Your task to perform on an android device: open a new tab in the chrome app Image 0: 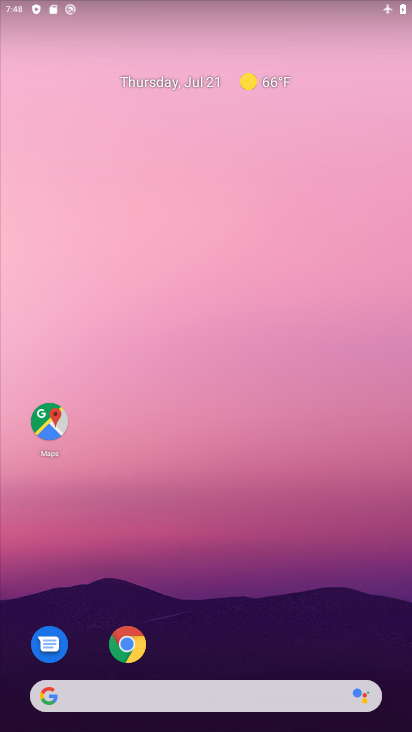
Step 0: click (207, 120)
Your task to perform on an android device: open a new tab in the chrome app Image 1: 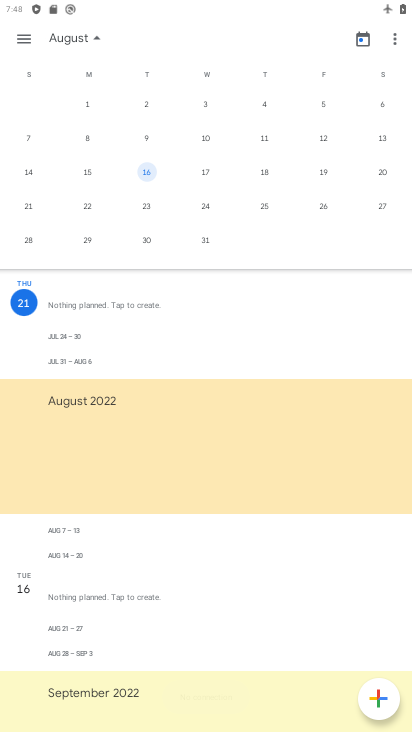
Step 1: press back button
Your task to perform on an android device: open a new tab in the chrome app Image 2: 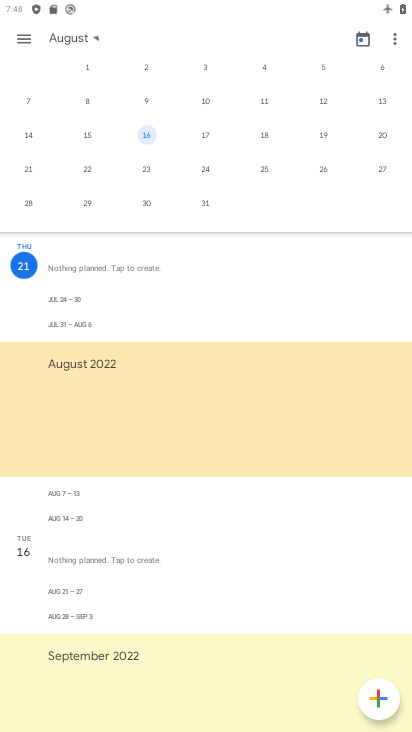
Step 2: press back button
Your task to perform on an android device: open a new tab in the chrome app Image 3: 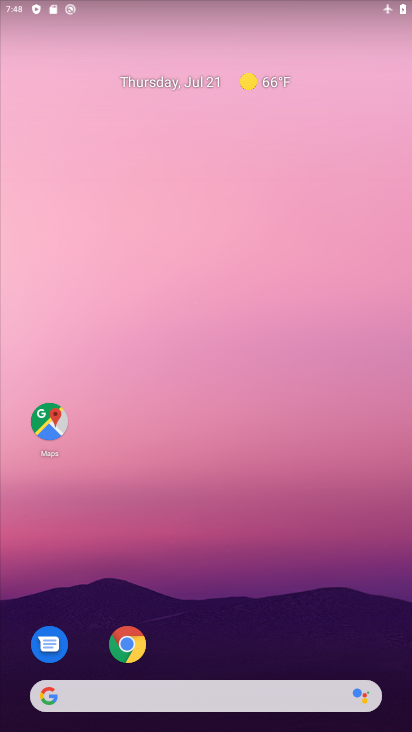
Step 3: drag from (236, 507) to (232, 102)
Your task to perform on an android device: open a new tab in the chrome app Image 4: 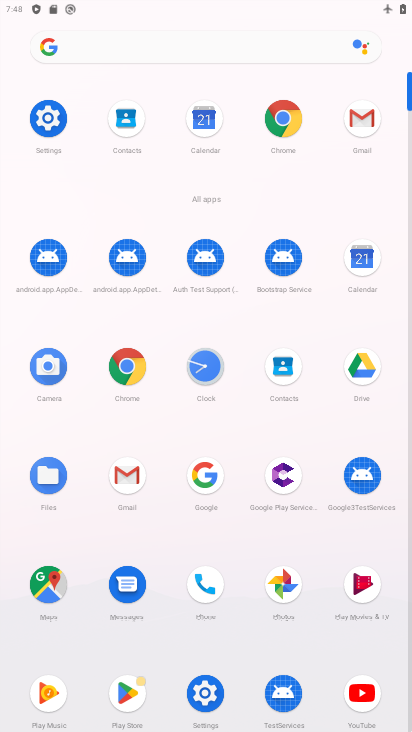
Step 4: click (286, 112)
Your task to perform on an android device: open a new tab in the chrome app Image 5: 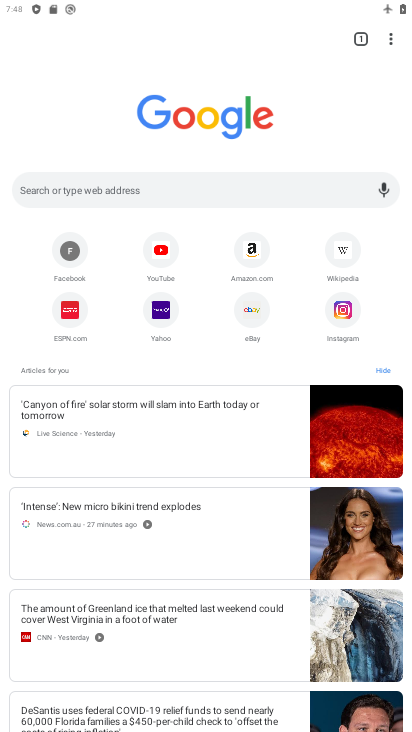
Step 5: drag from (393, 42) to (241, 72)
Your task to perform on an android device: open a new tab in the chrome app Image 6: 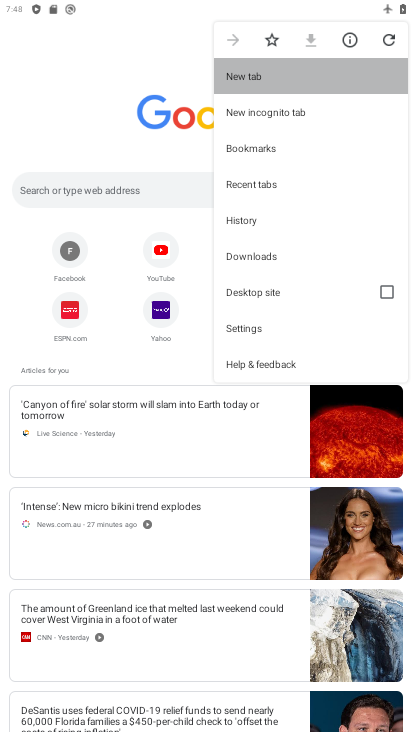
Step 6: click (241, 72)
Your task to perform on an android device: open a new tab in the chrome app Image 7: 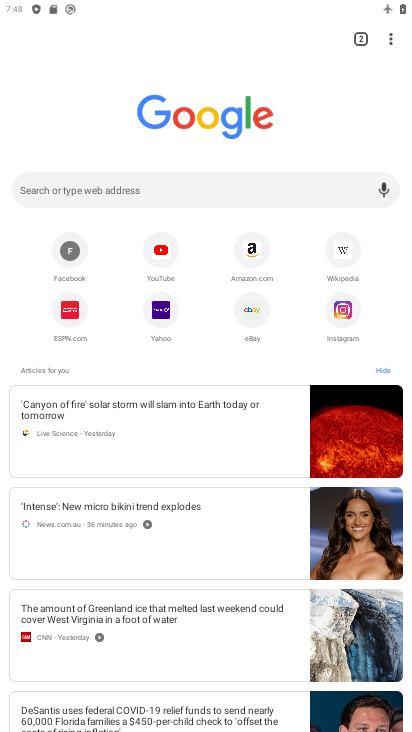
Step 7: task complete